Your task to perform on an android device: Open calendar and show me the first week of next month Image 0: 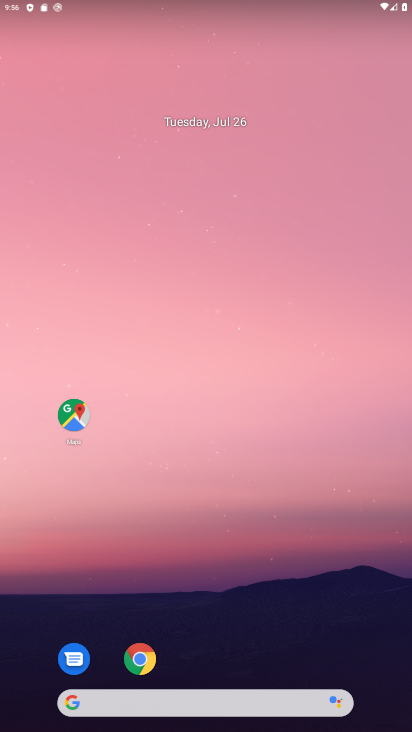
Step 0: drag from (396, 710) to (339, 77)
Your task to perform on an android device: Open calendar and show me the first week of next month Image 1: 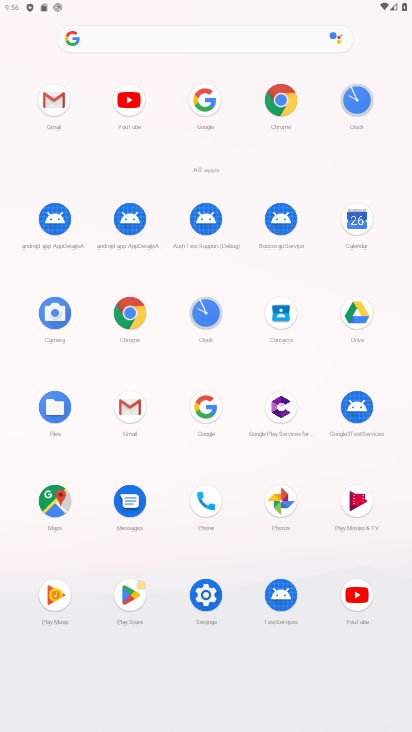
Step 1: click (363, 223)
Your task to perform on an android device: Open calendar and show me the first week of next month Image 2: 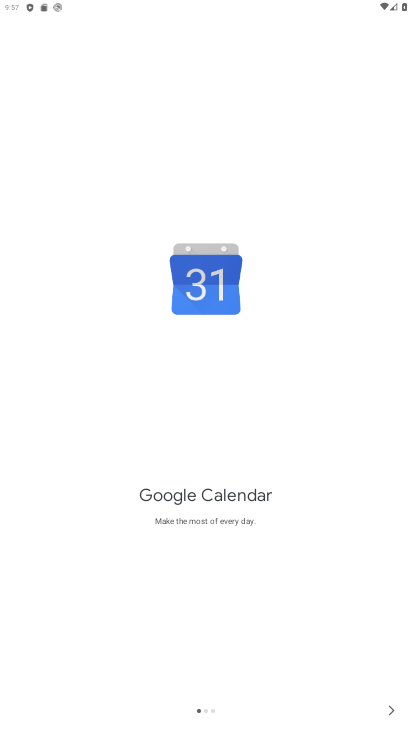
Step 2: click (386, 708)
Your task to perform on an android device: Open calendar and show me the first week of next month Image 3: 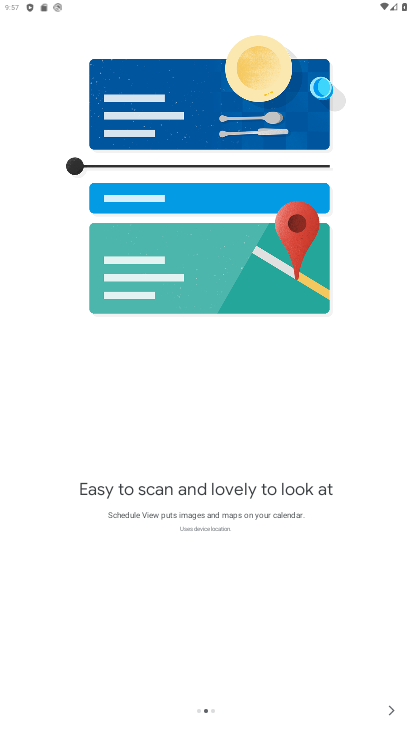
Step 3: click (386, 708)
Your task to perform on an android device: Open calendar and show me the first week of next month Image 4: 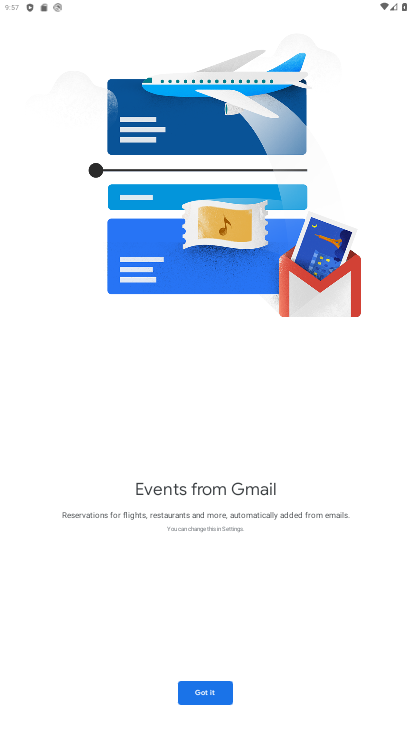
Step 4: click (222, 679)
Your task to perform on an android device: Open calendar and show me the first week of next month Image 5: 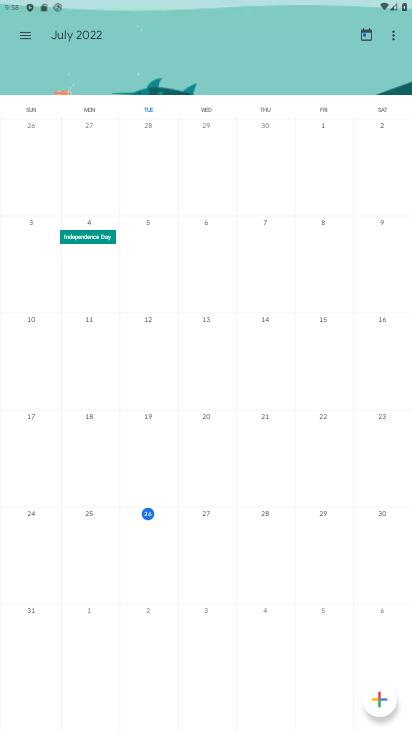
Step 5: click (19, 39)
Your task to perform on an android device: Open calendar and show me the first week of next month Image 6: 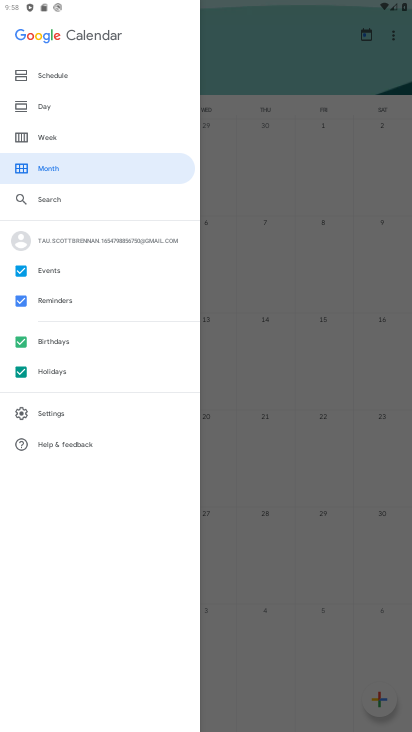
Step 6: click (56, 133)
Your task to perform on an android device: Open calendar and show me the first week of next month Image 7: 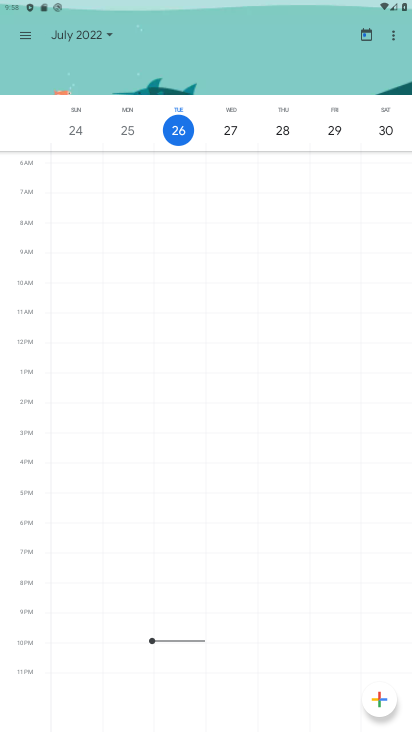
Step 7: click (100, 33)
Your task to perform on an android device: Open calendar and show me the first week of next month Image 8: 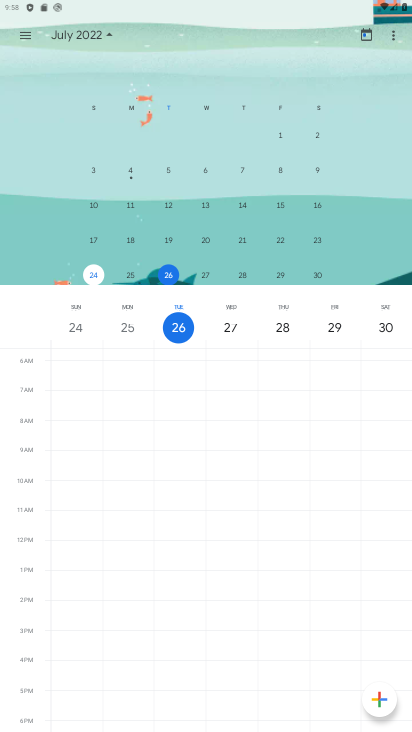
Step 8: drag from (393, 183) to (54, 169)
Your task to perform on an android device: Open calendar and show me the first week of next month Image 9: 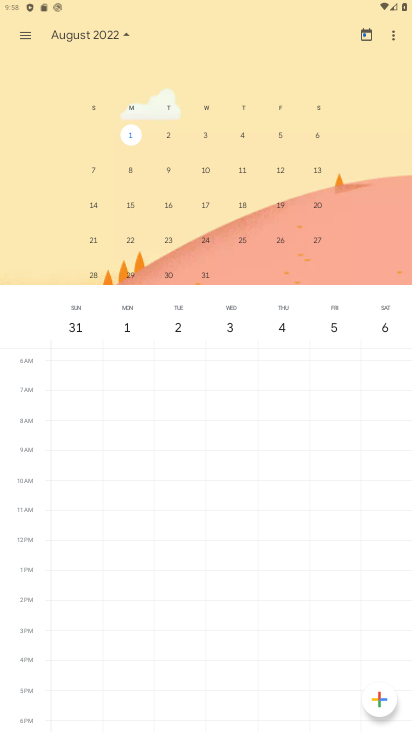
Step 9: click (244, 136)
Your task to perform on an android device: Open calendar and show me the first week of next month Image 10: 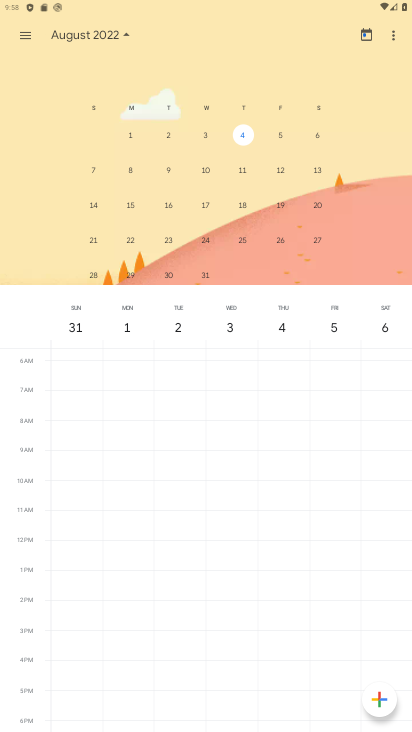
Step 10: task complete